Your task to perform on an android device: toggle show notifications on the lock screen Image 0: 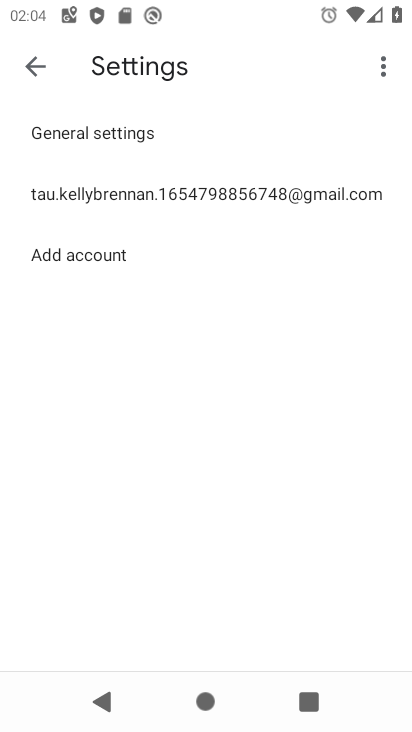
Step 0: press home button
Your task to perform on an android device: toggle show notifications on the lock screen Image 1: 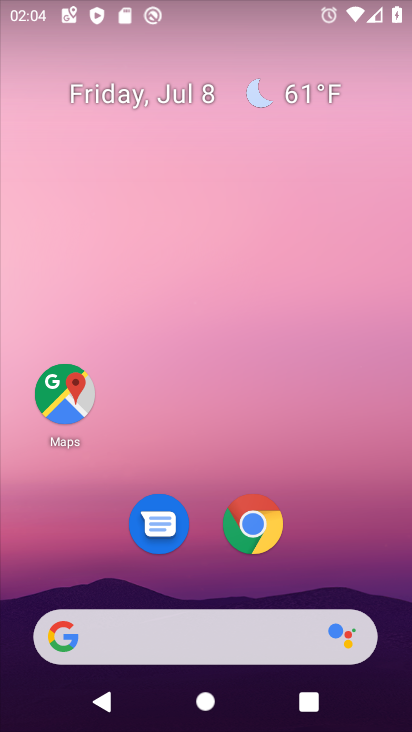
Step 1: drag from (206, 452) to (207, 1)
Your task to perform on an android device: toggle show notifications on the lock screen Image 2: 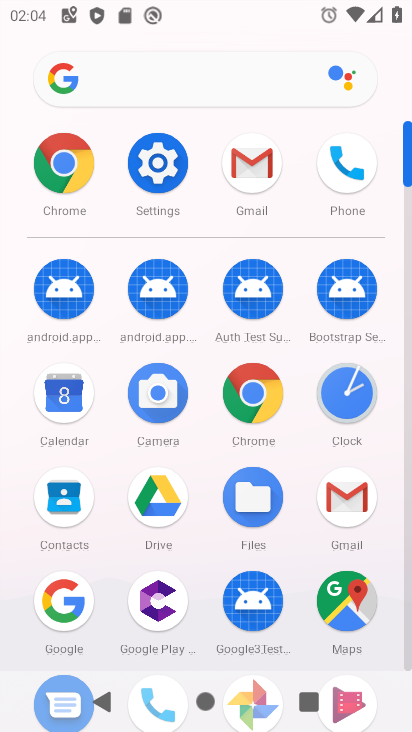
Step 2: click (157, 163)
Your task to perform on an android device: toggle show notifications on the lock screen Image 3: 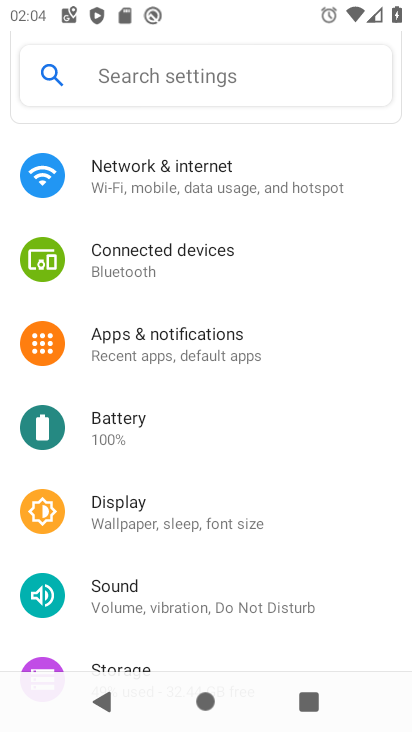
Step 3: click (210, 344)
Your task to perform on an android device: toggle show notifications on the lock screen Image 4: 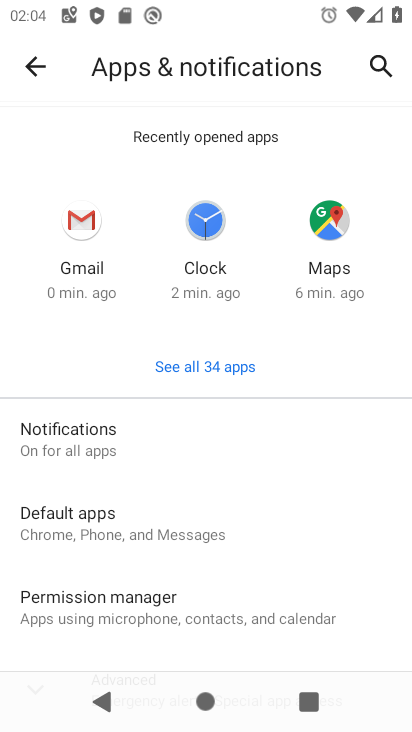
Step 4: click (101, 426)
Your task to perform on an android device: toggle show notifications on the lock screen Image 5: 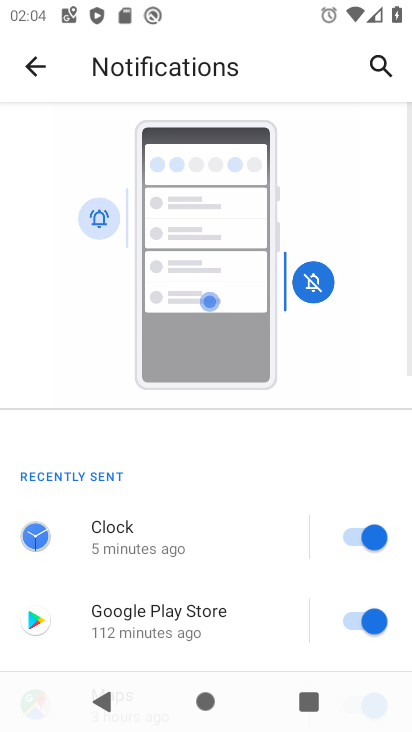
Step 5: drag from (262, 524) to (263, 123)
Your task to perform on an android device: toggle show notifications on the lock screen Image 6: 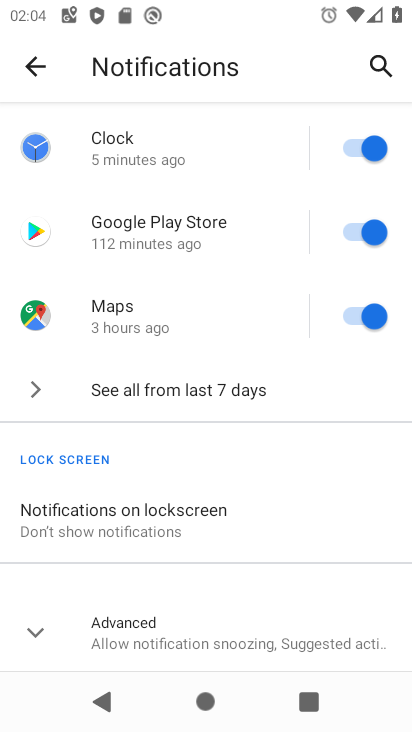
Step 6: click (198, 516)
Your task to perform on an android device: toggle show notifications on the lock screen Image 7: 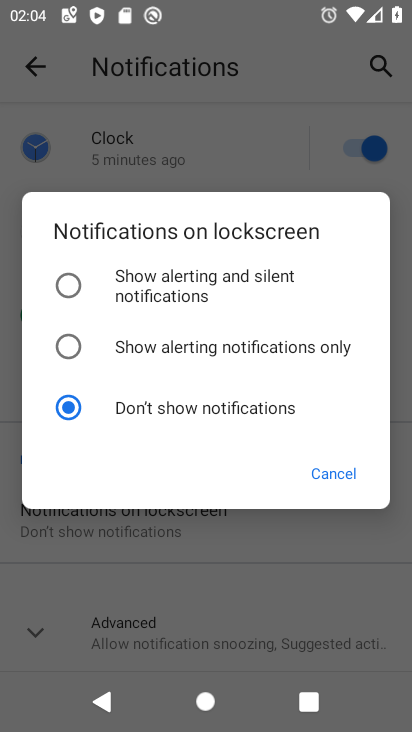
Step 7: click (69, 281)
Your task to perform on an android device: toggle show notifications on the lock screen Image 8: 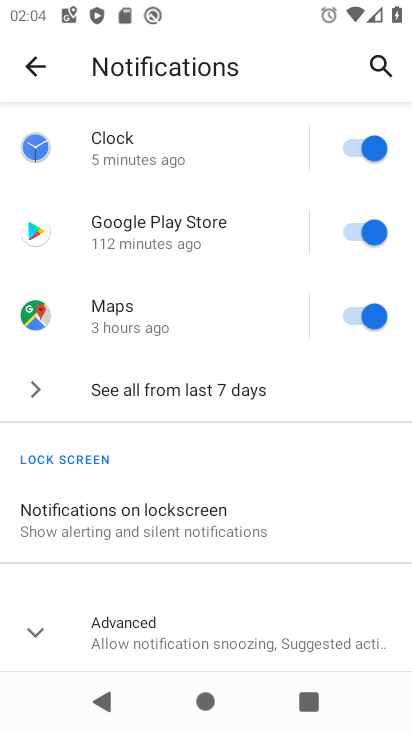
Step 8: task complete